Your task to perform on an android device: change keyboard looks Image 0: 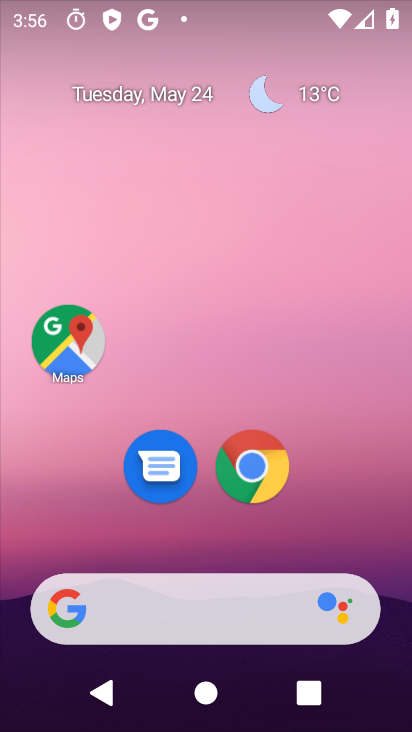
Step 0: drag from (343, 483) to (412, 42)
Your task to perform on an android device: change keyboard looks Image 1: 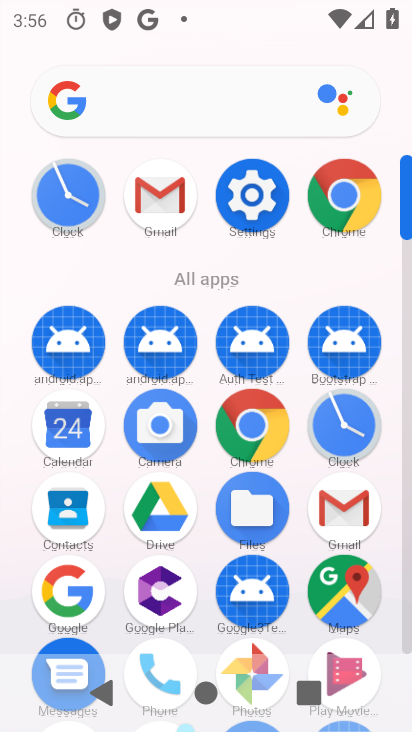
Step 1: click (243, 214)
Your task to perform on an android device: change keyboard looks Image 2: 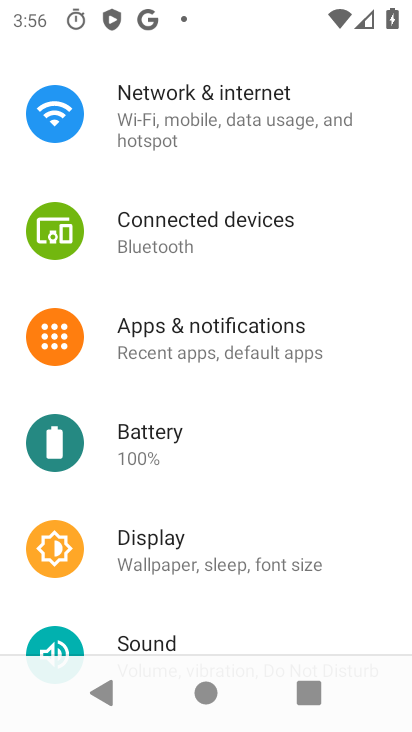
Step 2: drag from (200, 516) to (282, 10)
Your task to perform on an android device: change keyboard looks Image 3: 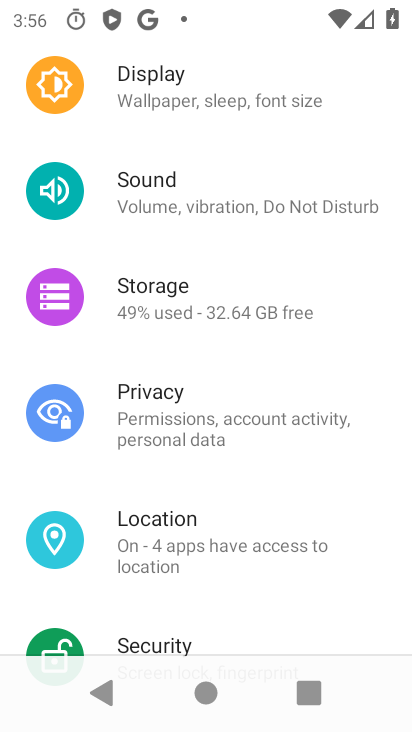
Step 3: drag from (161, 549) to (238, 76)
Your task to perform on an android device: change keyboard looks Image 4: 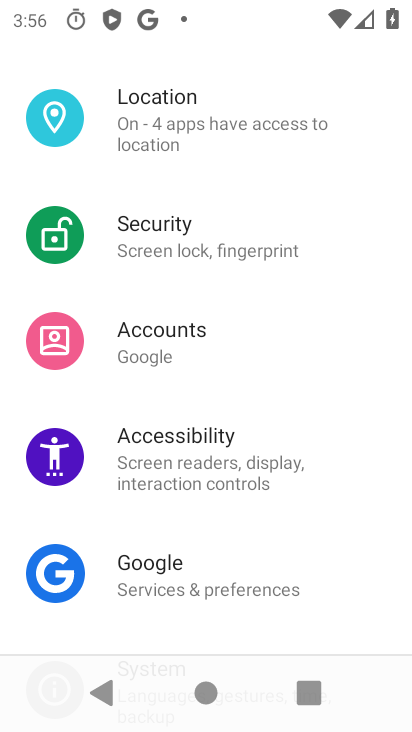
Step 4: drag from (223, 534) to (262, 144)
Your task to perform on an android device: change keyboard looks Image 5: 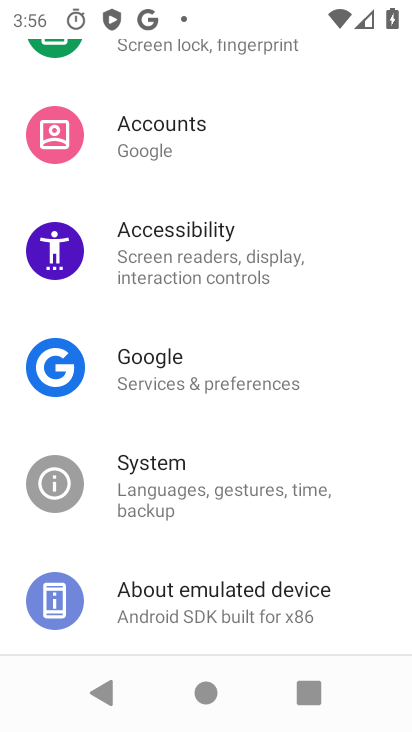
Step 5: click (165, 487)
Your task to perform on an android device: change keyboard looks Image 6: 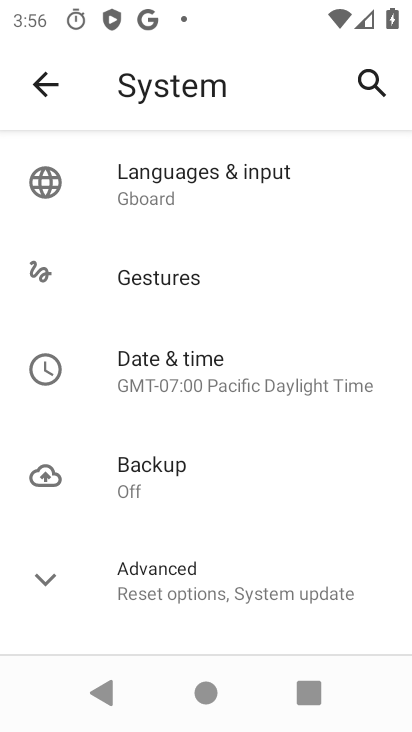
Step 6: click (178, 195)
Your task to perform on an android device: change keyboard looks Image 7: 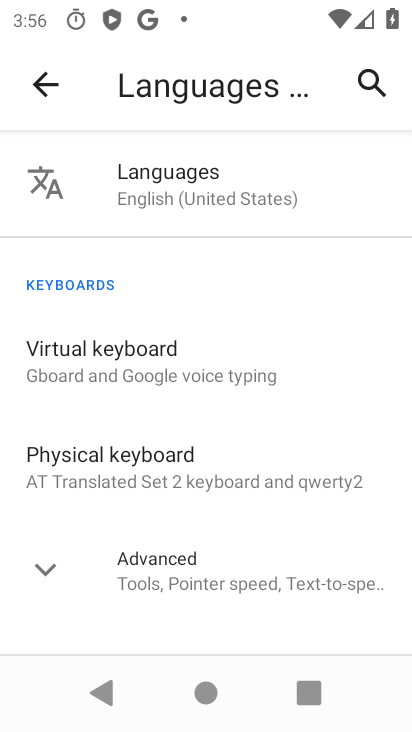
Step 7: click (140, 385)
Your task to perform on an android device: change keyboard looks Image 8: 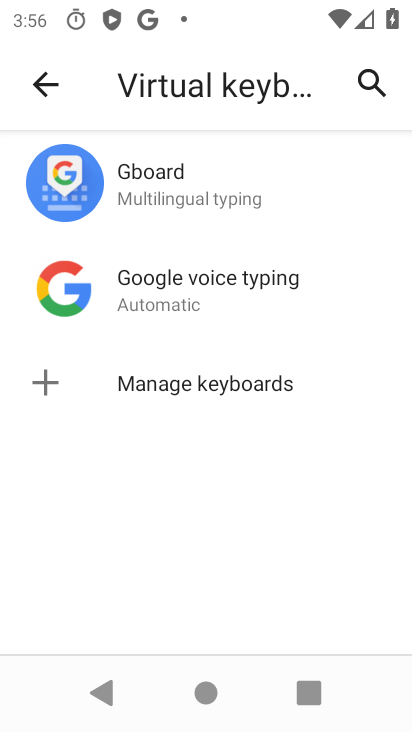
Step 8: click (160, 195)
Your task to perform on an android device: change keyboard looks Image 9: 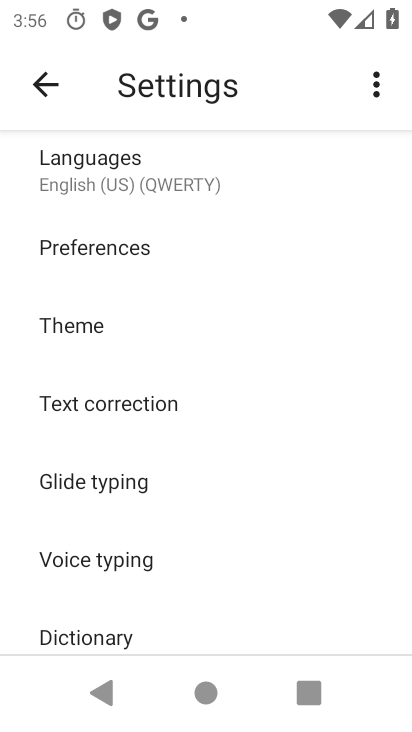
Step 9: click (89, 330)
Your task to perform on an android device: change keyboard looks Image 10: 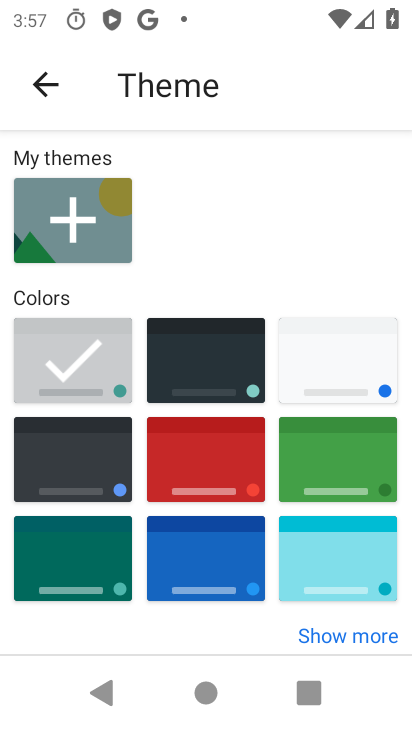
Step 10: click (362, 354)
Your task to perform on an android device: change keyboard looks Image 11: 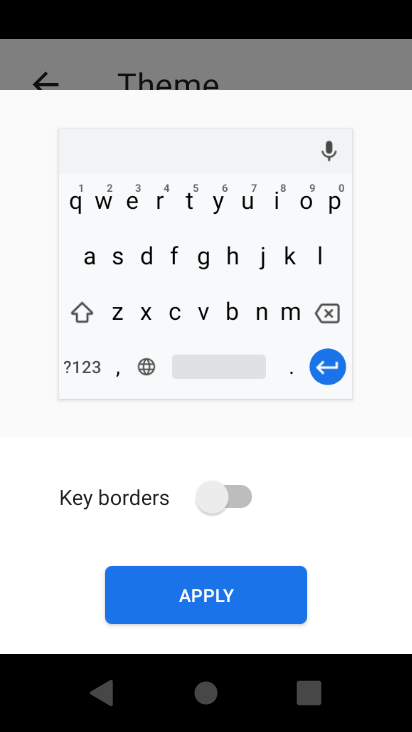
Step 11: click (255, 590)
Your task to perform on an android device: change keyboard looks Image 12: 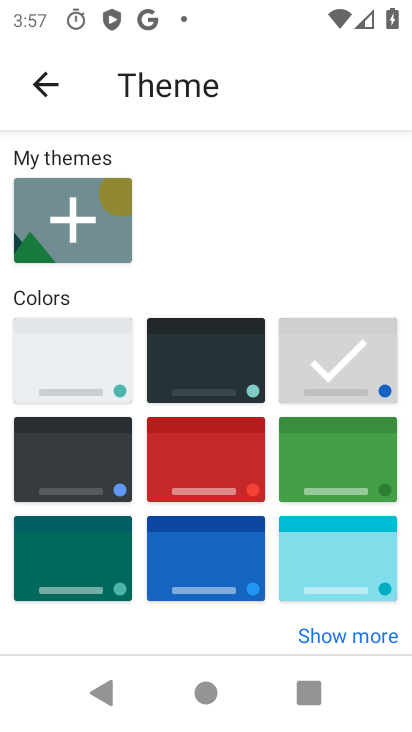
Step 12: task complete